Your task to perform on an android device: check the backup settings in the google photos Image 0: 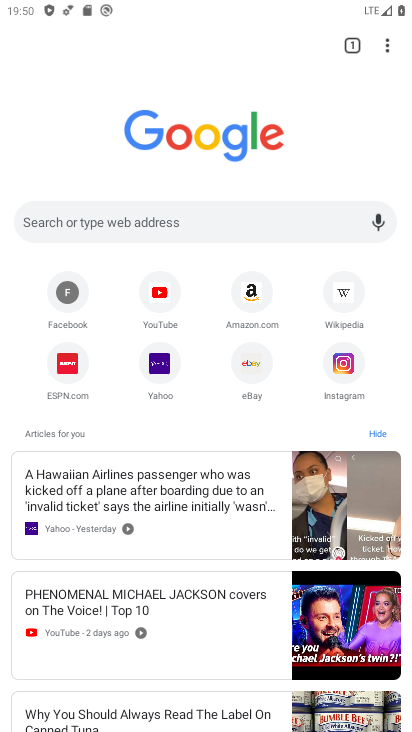
Step 0: press home button
Your task to perform on an android device: check the backup settings in the google photos Image 1: 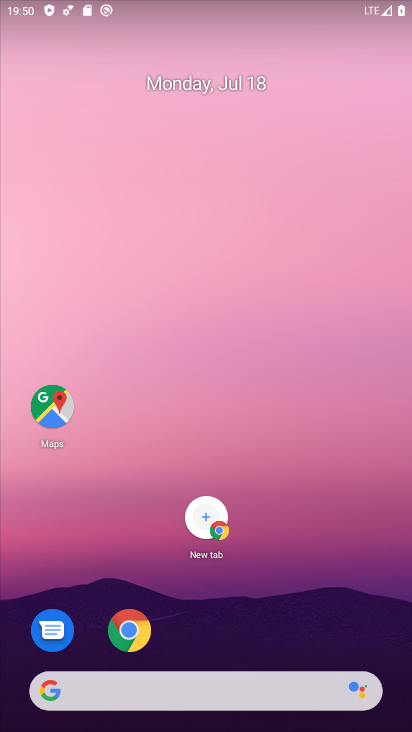
Step 1: drag from (206, 621) to (280, 343)
Your task to perform on an android device: check the backup settings in the google photos Image 2: 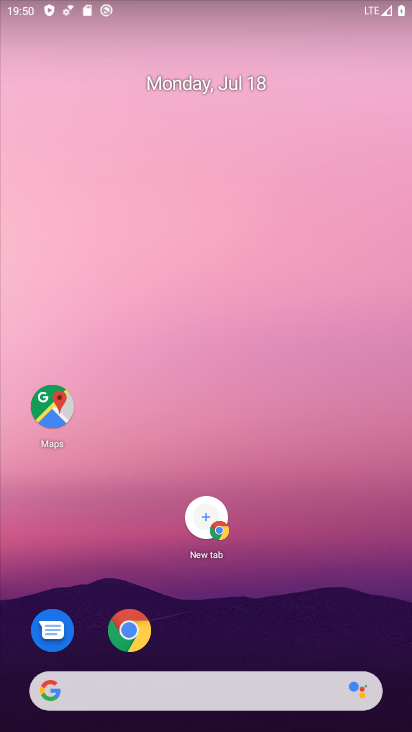
Step 2: drag from (155, 701) to (255, 170)
Your task to perform on an android device: check the backup settings in the google photos Image 3: 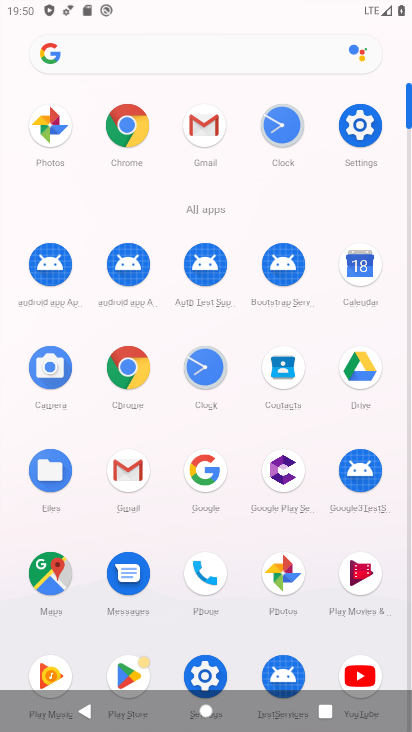
Step 3: click (287, 567)
Your task to perform on an android device: check the backup settings in the google photos Image 4: 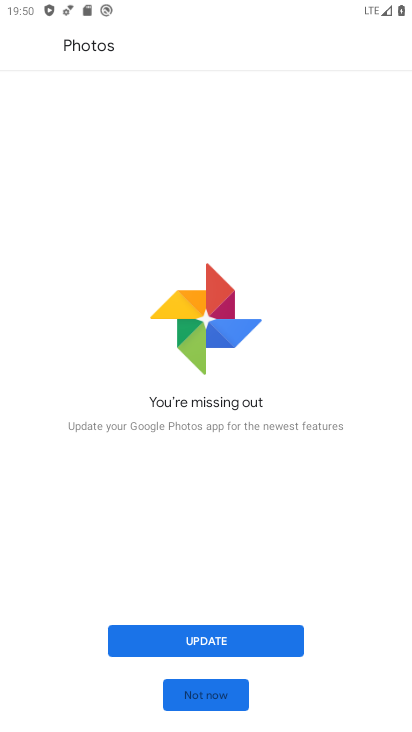
Step 4: click (187, 684)
Your task to perform on an android device: check the backup settings in the google photos Image 5: 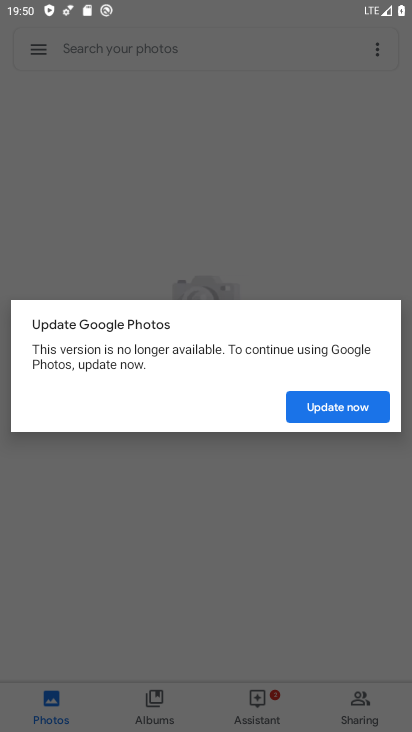
Step 5: drag from (357, 415) to (402, 415)
Your task to perform on an android device: check the backup settings in the google photos Image 6: 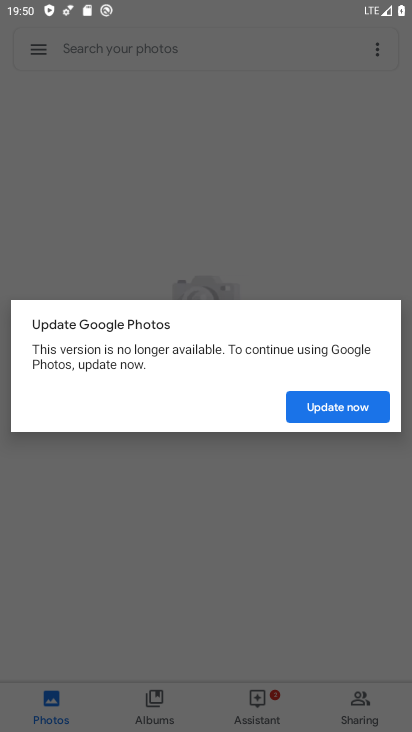
Step 6: click (364, 404)
Your task to perform on an android device: check the backup settings in the google photos Image 7: 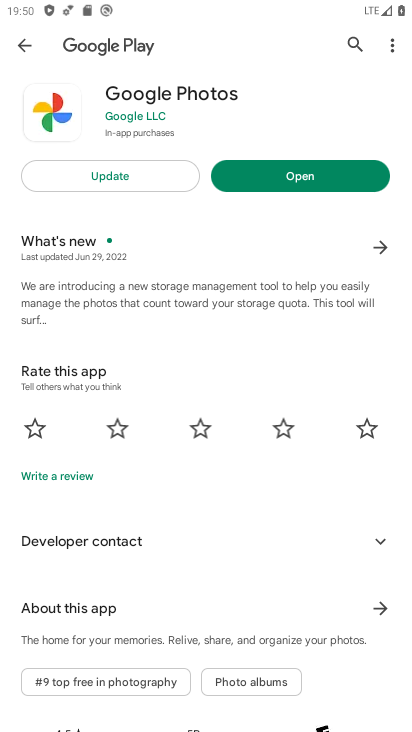
Step 7: click (263, 179)
Your task to perform on an android device: check the backup settings in the google photos Image 8: 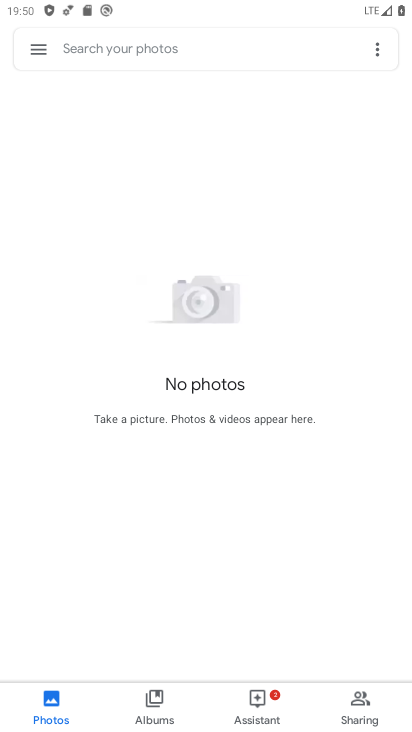
Step 8: click (41, 51)
Your task to perform on an android device: check the backup settings in the google photos Image 9: 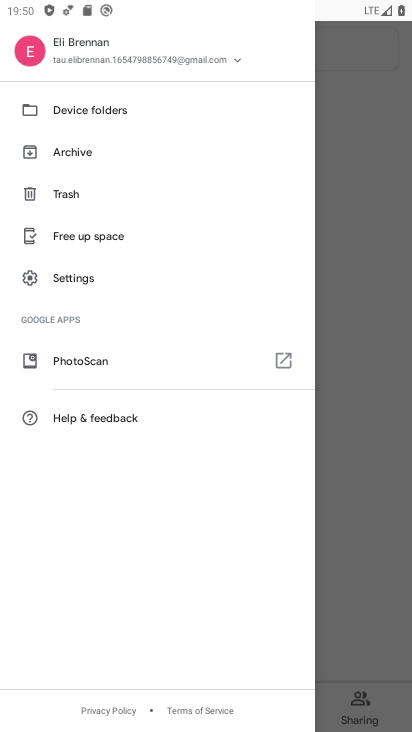
Step 9: click (90, 356)
Your task to perform on an android device: check the backup settings in the google photos Image 10: 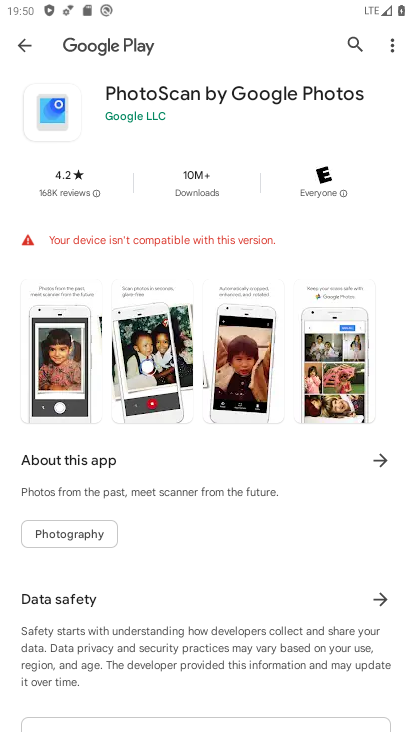
Step 10: press back button
Your task to perform on an android device: check the backup settings in the google photos Image 11: 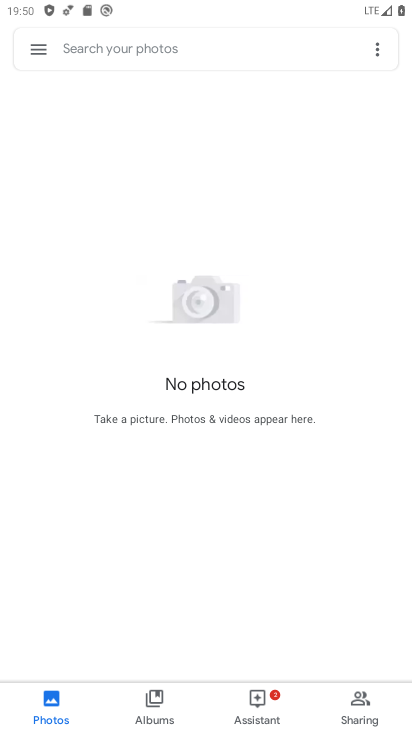
Step 11: click (33, 44)
Your task to perform on an android device: check the backup settings in the google photos Image 12: 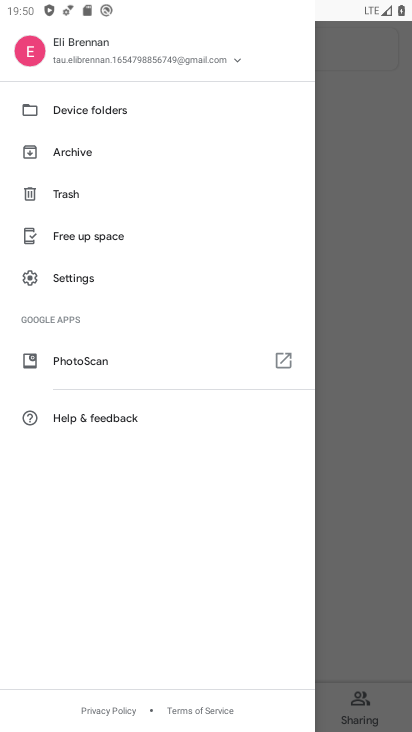
Step 12: click (88, 280)
Your task to perform on an android device: check the backup settings in the google photos Image 13: 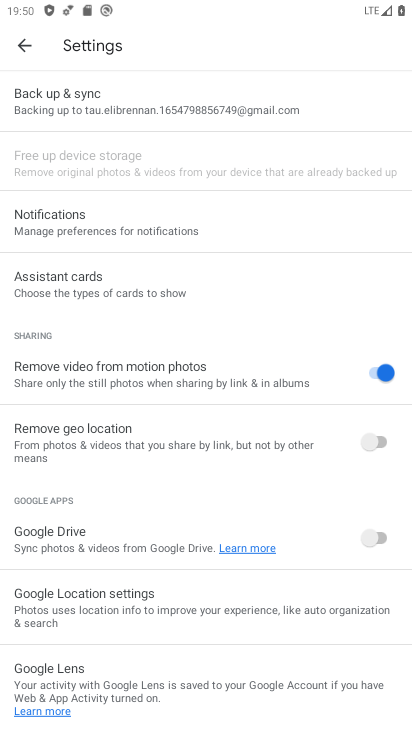
Step 13: click (137, 105)
Your task to perform on an android device: check the backup settings in the google photos Image 14: 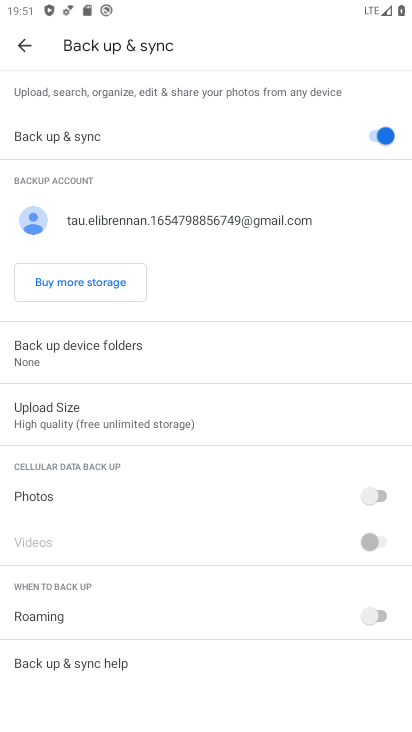
Step 14: click (77, 667)
Your task to perform on an android device: check the backup settings in the google photos Image 15: 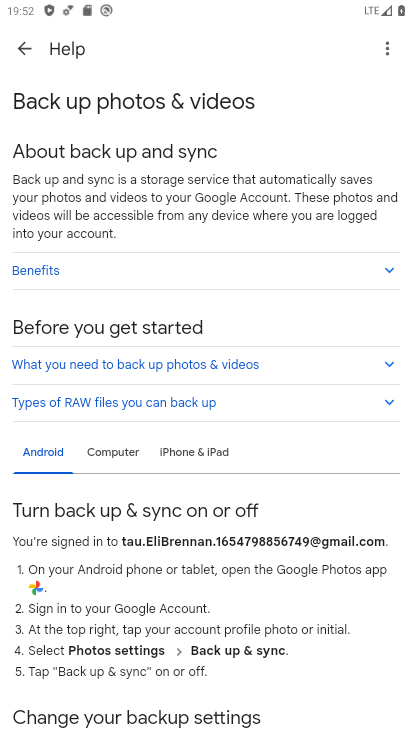
Step 15: task complete